Your task to perform on an android device: Open Chrome and go to settings Image 0: 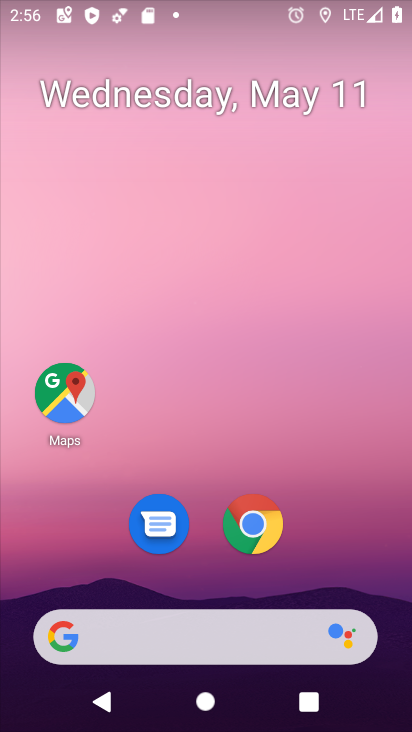
Step 0: click (269, 532)
Your task to perform on an android device: Open Chrome and go to settings Image 1: 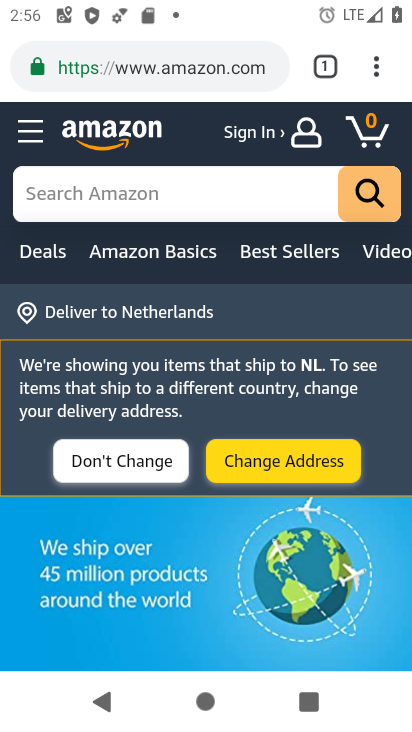
Step 1: click (374, 68)
Your task to perform on an android device: Open Chrome and go to settings Image 2: 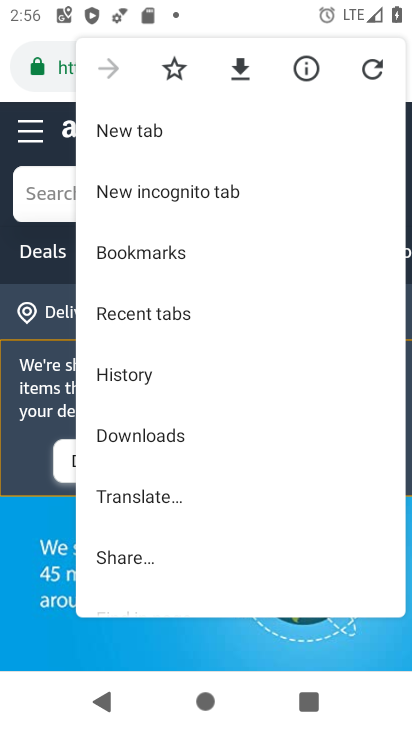
Step 2: drag from (263, 465) to (239, 245)
Your task to perform on an android device: Open Chrome and go to settings Image 3: 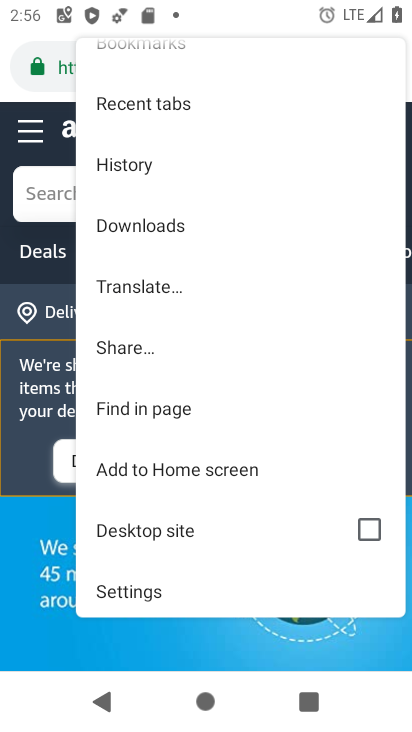
Step 3: click (218, 586)
Your task to perform on an android device: Open Chrome and go to settings Image 4: 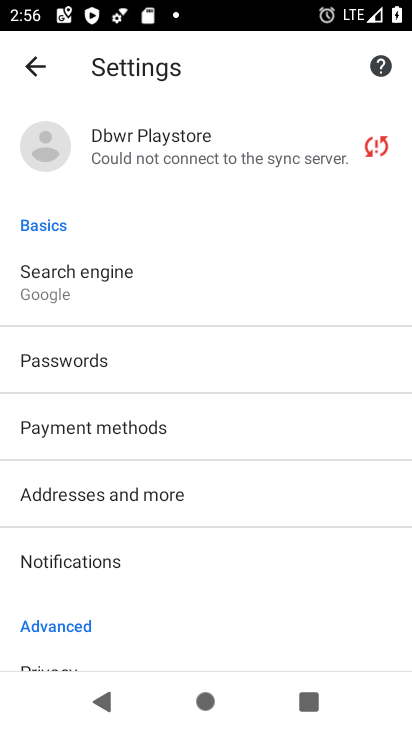
Step 4: task complete